Your task to perform on an android device: change notifications settings Image 0: 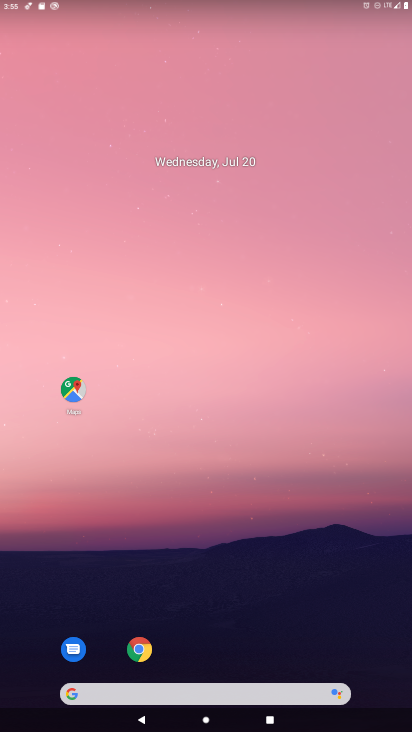
Step 0: drag from (227, 690) to (278, 20)
Your task to perform on an android device: change notifications settings Image 1: 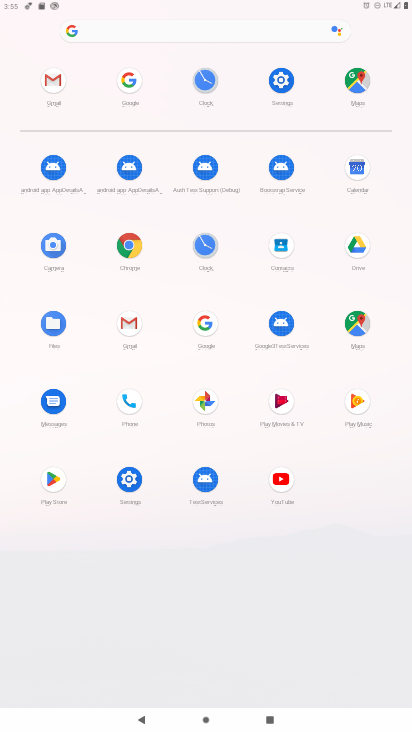
Step 1: click (282, 79)
Your task to perform on an android device: change notifications settings Image 2: 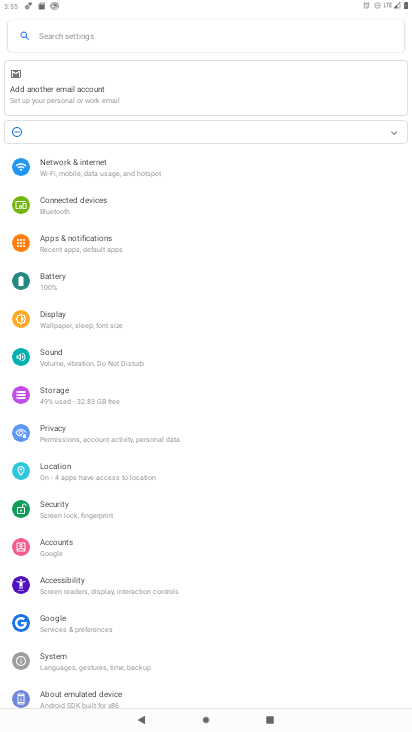
Step 2: click (76, 237)
Your task to perform on an android device: change notifications settings Image 3: 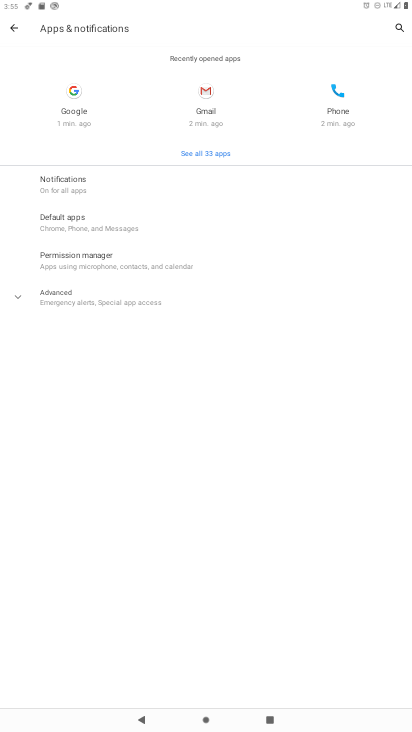
Step 3: click (60, 184)
Your task to perform on an android device: change notifications settings Image 4: 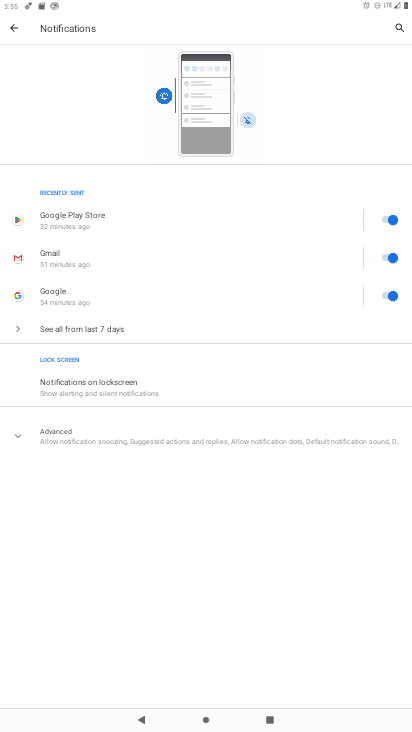
Step 4: click (126, 440)
Your task to perform on an android device: change notifications settings Image 5: 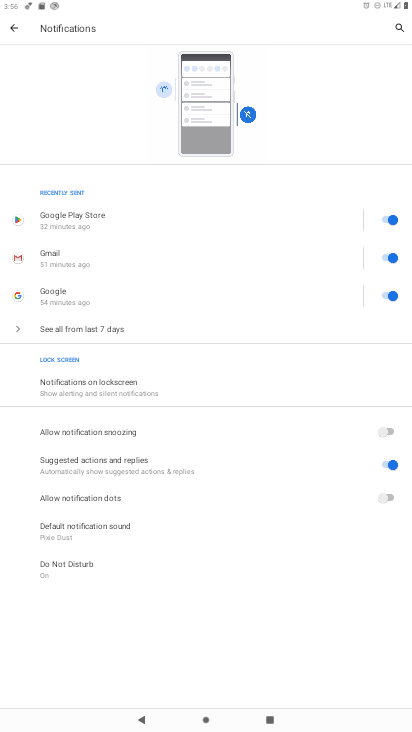
Step 5: click (387, 494)
Your task to perform on an android device: change notifications settings Image 6: 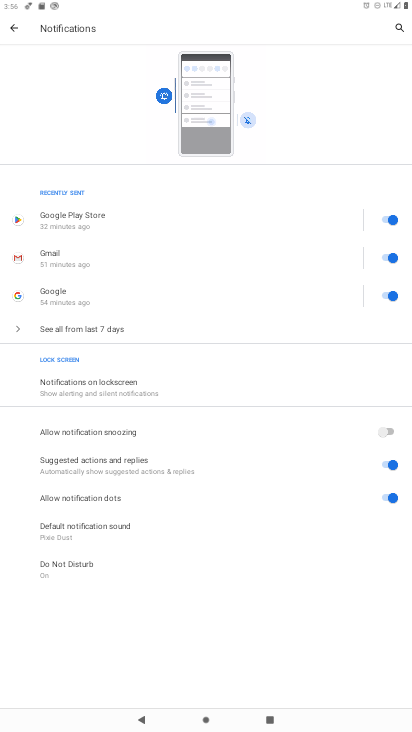
Step 6: task complete